Your task to perform on an android device: Go to battery settings Image 0: 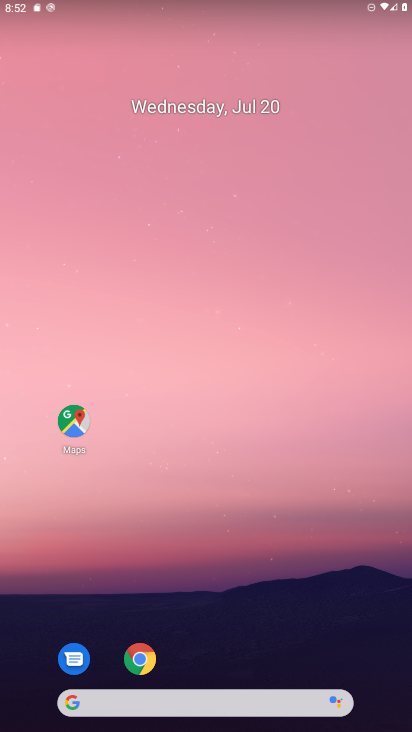
Step 0: drag from (270, 598) to (292, 68)
Your task to perform on an android device: Go to battery settings Image 1: 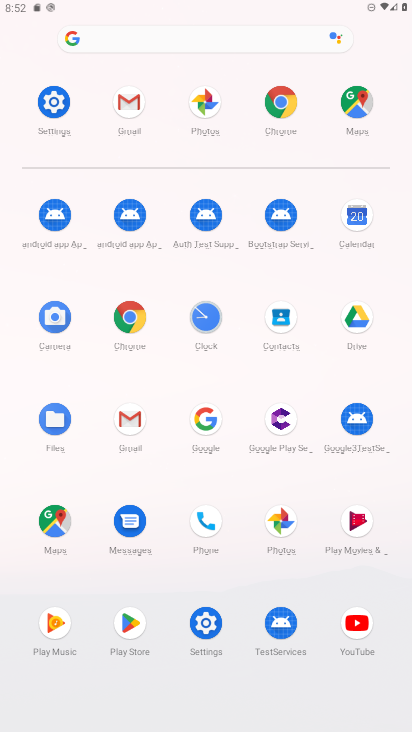
Step 1: click (211, 622)
Your task to perform on an android device: Go to battery settings Image 2: 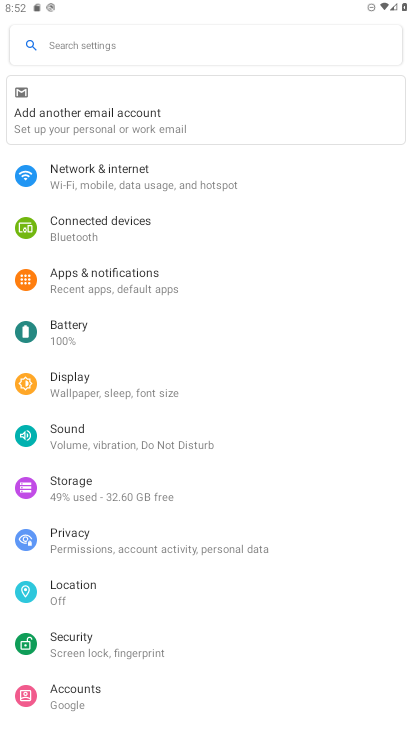
Step 2: click (89, 339)
Your task to perform on an android device: Go to battery settings Image 3: 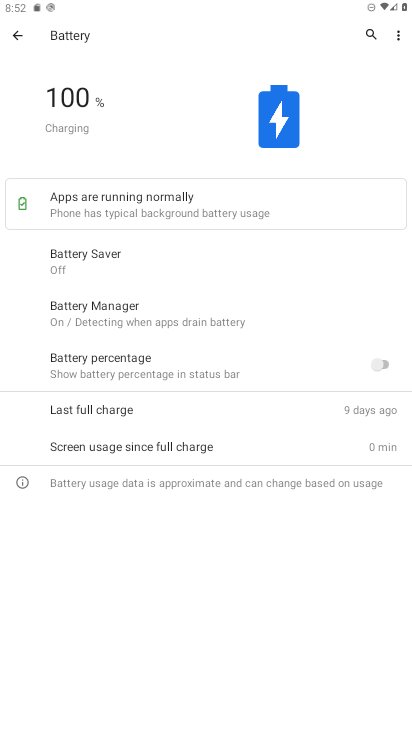
Step 3: task complete